Your task to perform on an android device: What's on my calendar today? Image 0: 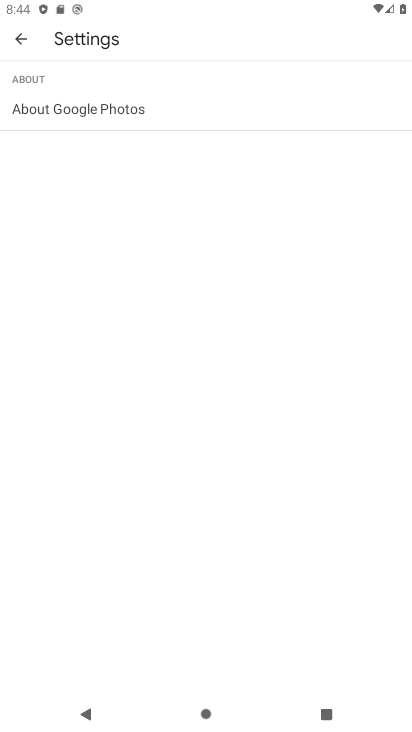
Step 0: press home button
Your task to perform on an android device: What's on my calendar today? Image 1: 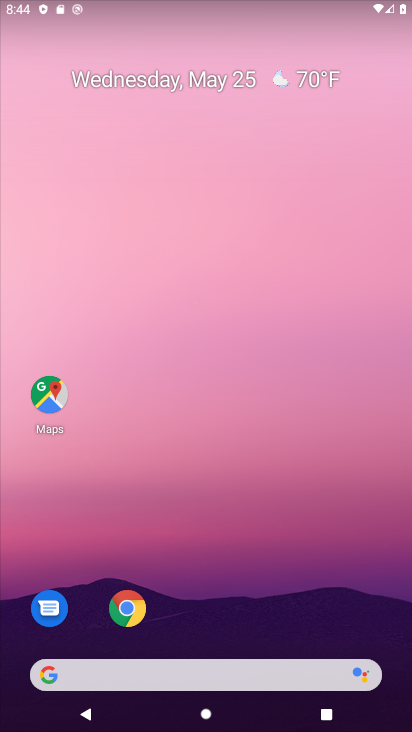
Step 1: drag from (322, 578) to (270, 0)
Your task to perform on an android device: What's on my calendar today? Image 2: 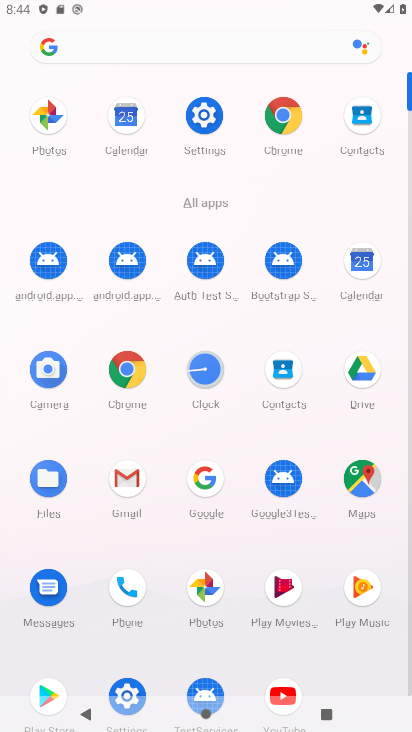
Step 2: click (136, 122)
Your task to perform on an android device: What's on my calendar today? Image 3: 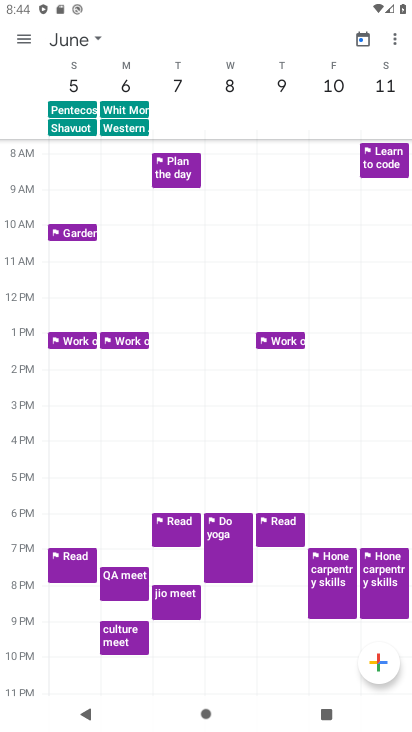
Step 3: click (26, 34)
Your task to perform on an android device: What's on my calendar today? Image 4: 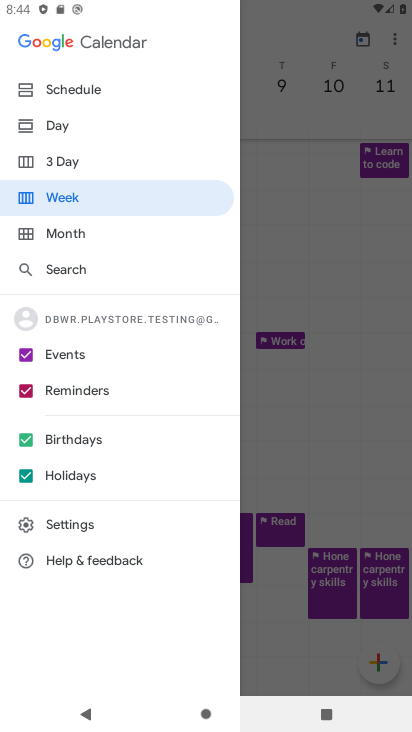
Step 4: click (64, 122)
Your task to perform on an android device: What's on my calendar today? Image 5: 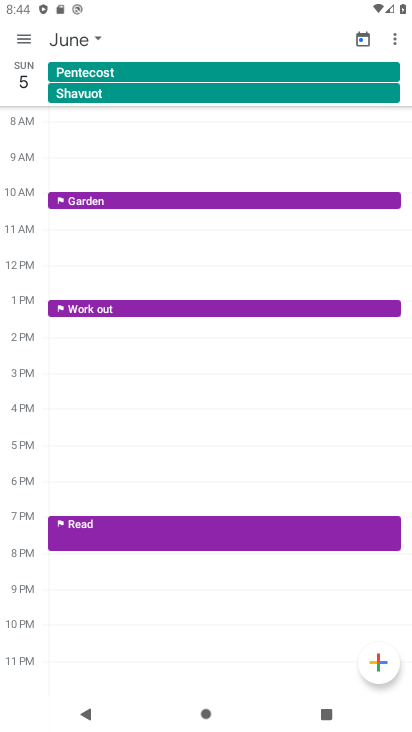
Step 5: click (84, 39)
Your task to perform on an android device: What's on my calendar today? Image 6: 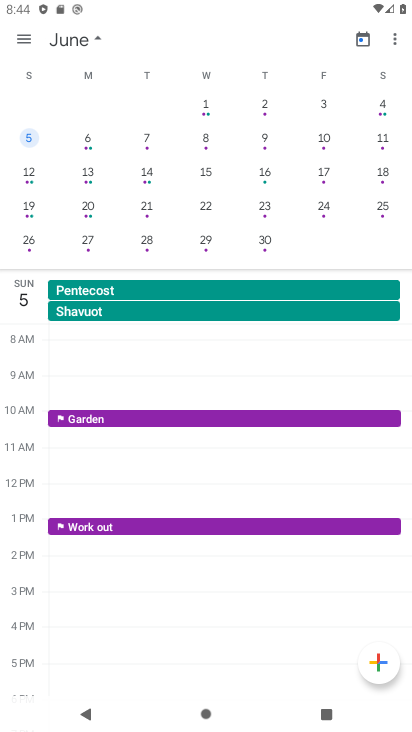
Step 6: task complete